Your task to perform on an android device: Go to Yahoo.com Image 0: 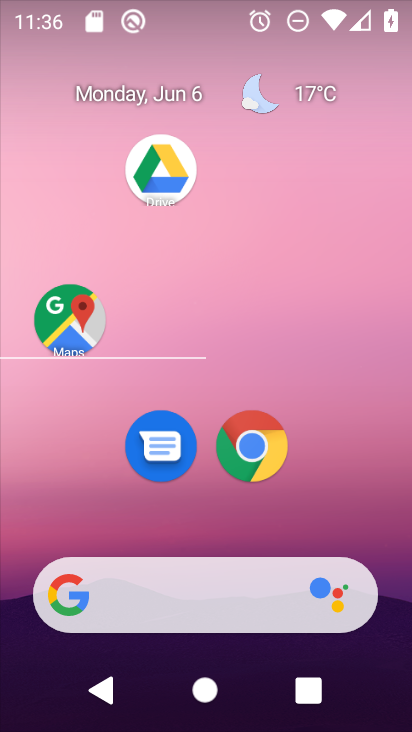
Step 0: click (244, 433)
Your task to perform on an android device: Go to Yahoo.com Image 1: 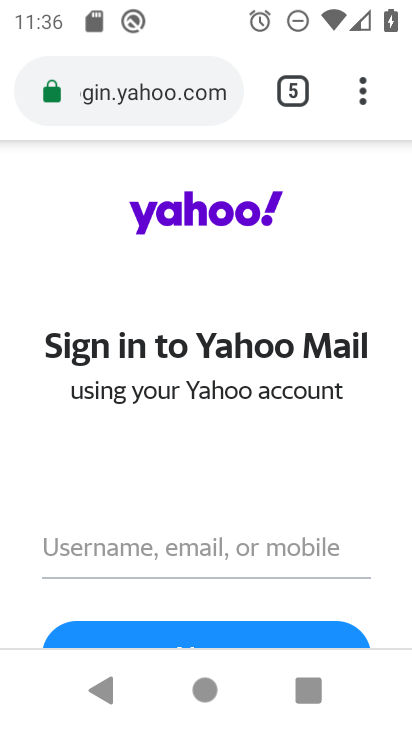
Step 1: task complete